Your task to perform on an android device: What's on my calendar today? Image 0: 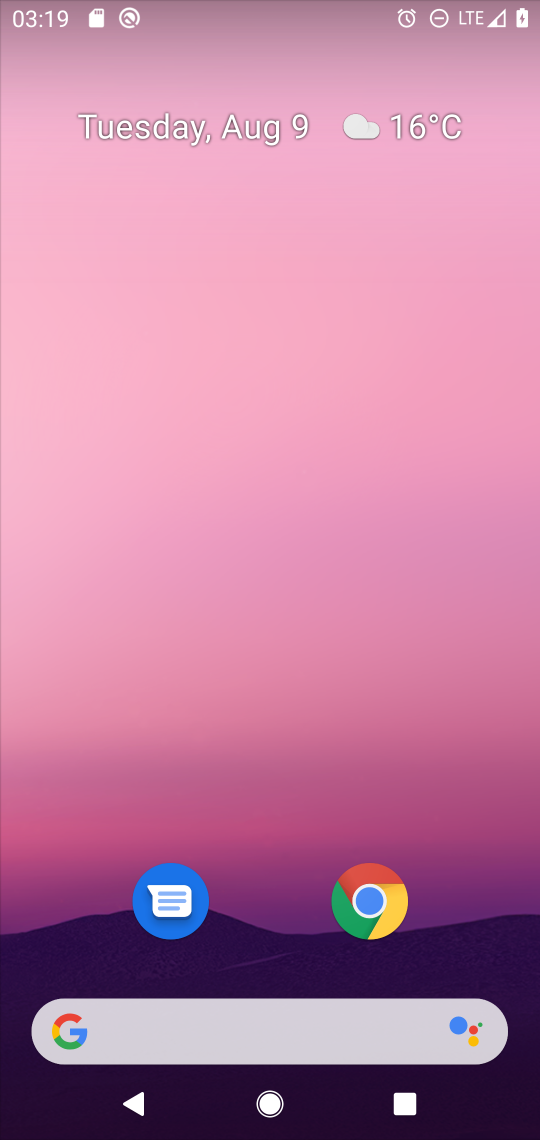
Step 0: drag from (504, 964) to (451, 287)
Your task to perform on an android device: What's on my calendar today? Image 1: 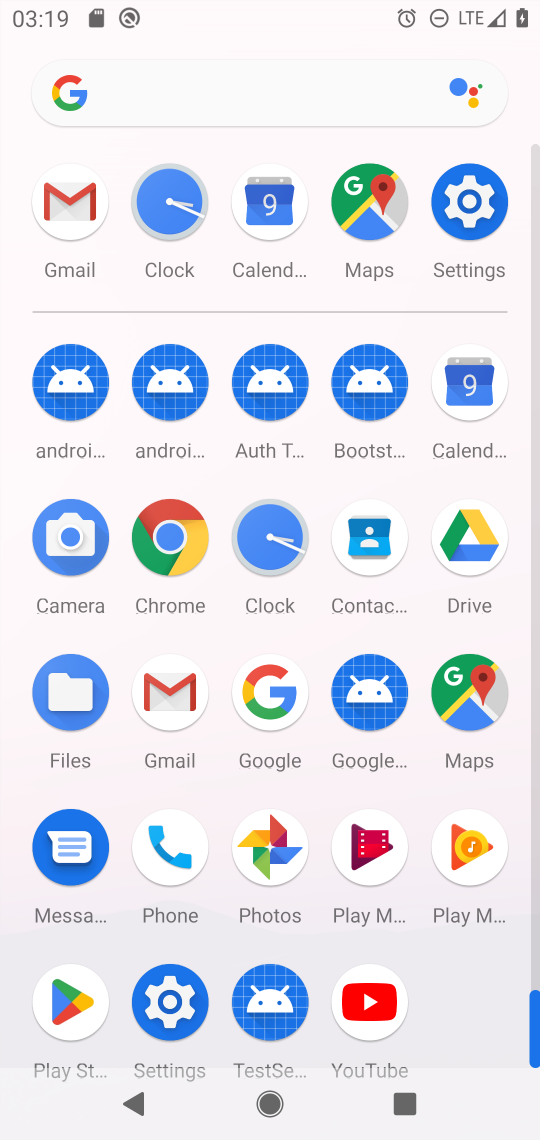
Step 1: click (471, 387)
Your task to perform on an android device: What's on my calendar today? Image 2: 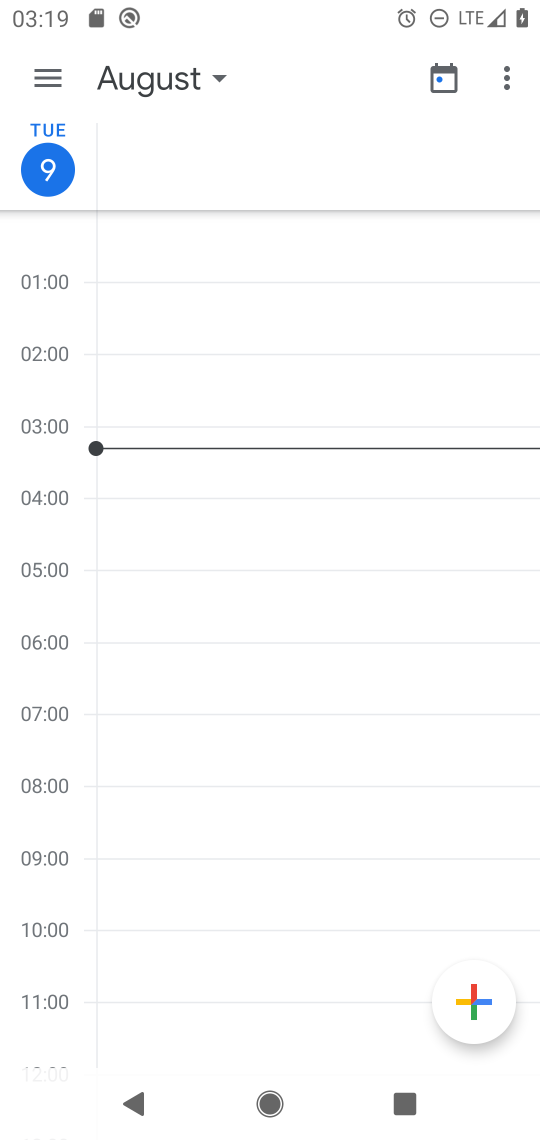
Step 2: task complete